Your task to perform on an android device: What is the recent news? Image 0: 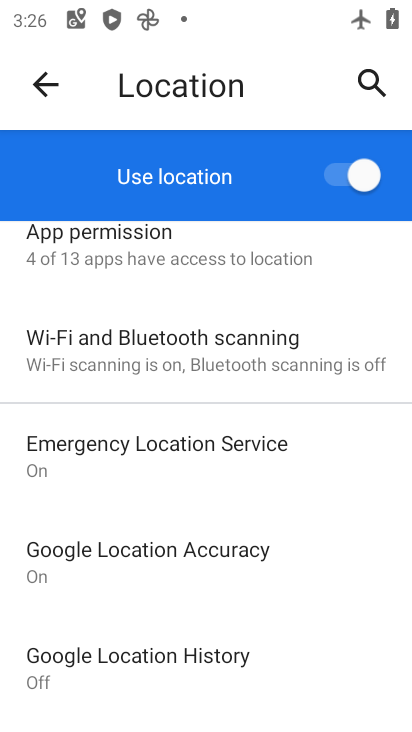
Step 0: task complete